Your task to perform on an android device: Show me popular games on the Play Store Image 0: 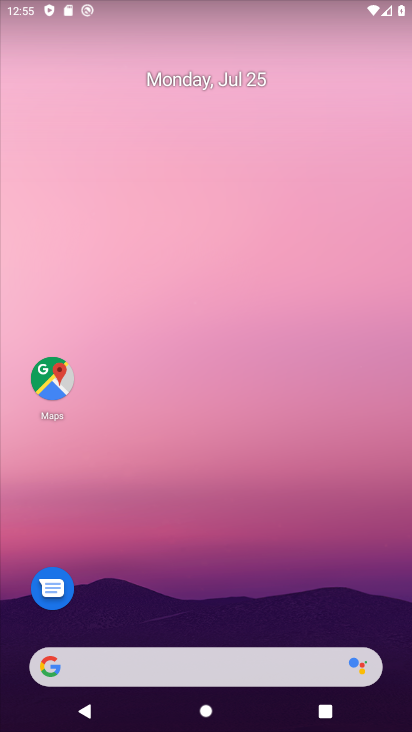
Step 0: click (201, 218)
Your task to perform on an android device: Show me popular games on the Play Store Image 1: 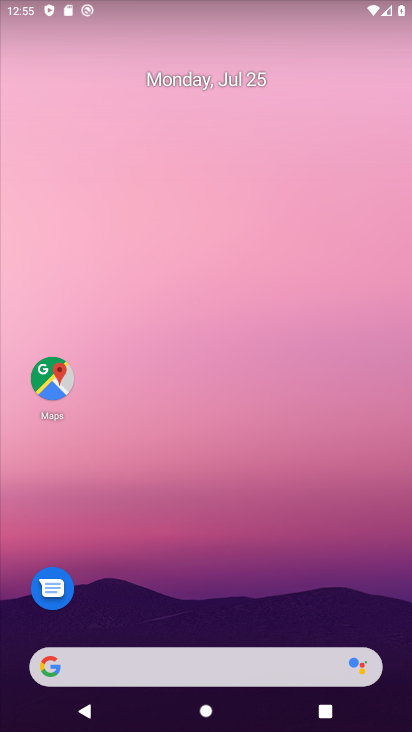
Step 1: drag from (286, 673) to (209, 146)
Your task to perform on an android device: Show me popular games on the Play Store Image 2: 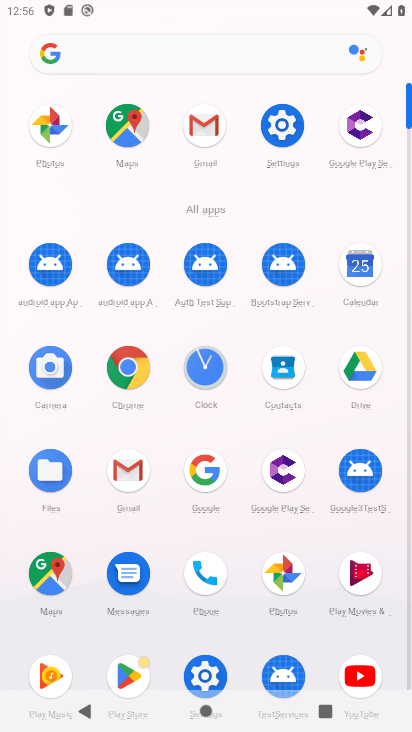
Step 2: click (125, 671)
Your task to perform on an android device: Show me popular games on the Play Store Image 3: 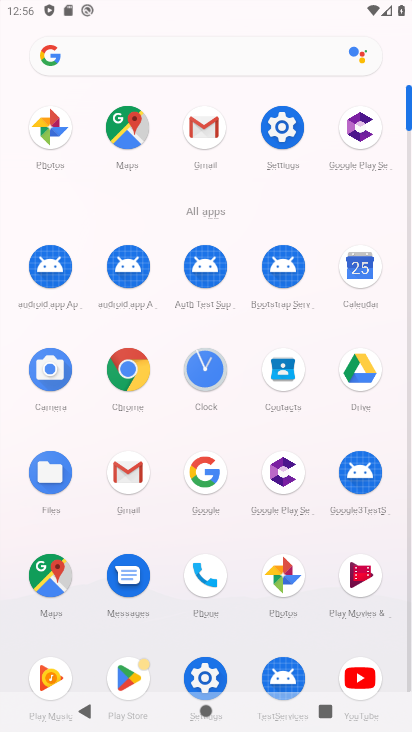
Step 3: click (133, 680)
Your task to perform on an android device: Show me popular games on the Play Store Image 4: 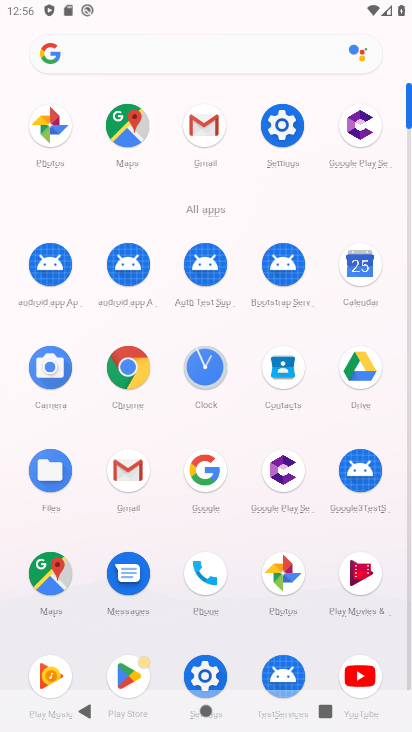
Step 4: click (134, 681)
Your task to perform on an android device: Show me popular games on the Play Store Image 5: 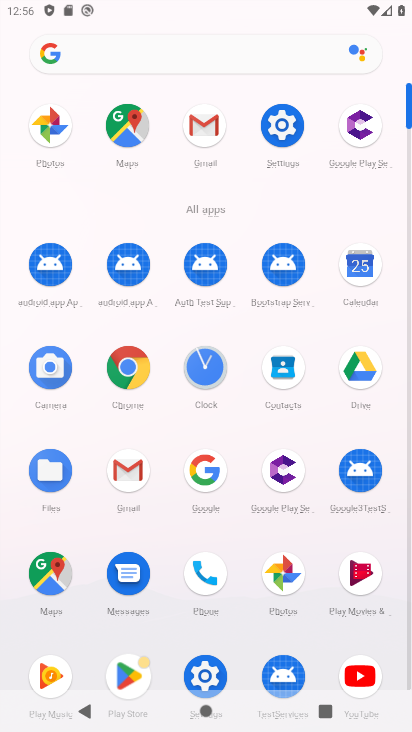
Step 5: click (134, 681)
Your task to perform on an android device: Show me popular games on the Play Store Image 6: 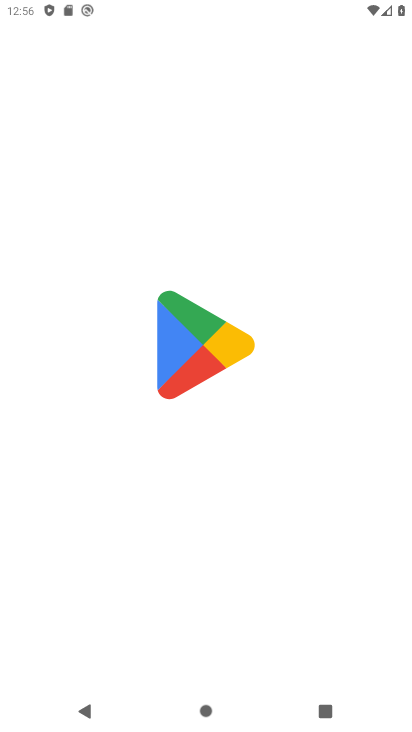
Step 6: click (137, 675)
Your task to perform on an android device: Show me popular games on the Play Store Image 7: 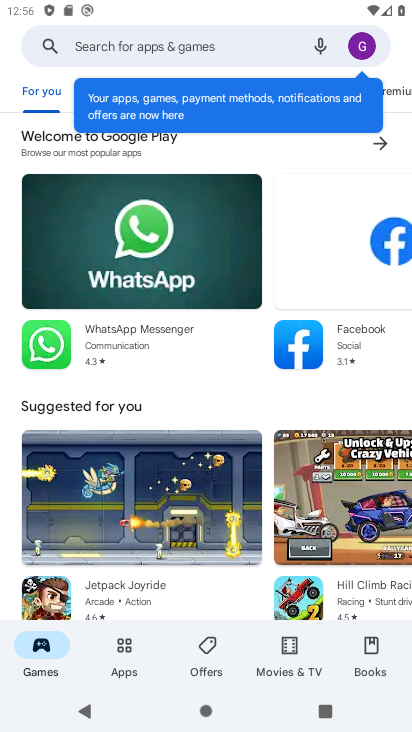
Step 7: click (240, 43)
Your task to perform on an android device: Show me popular games on the Play Store Image 8: 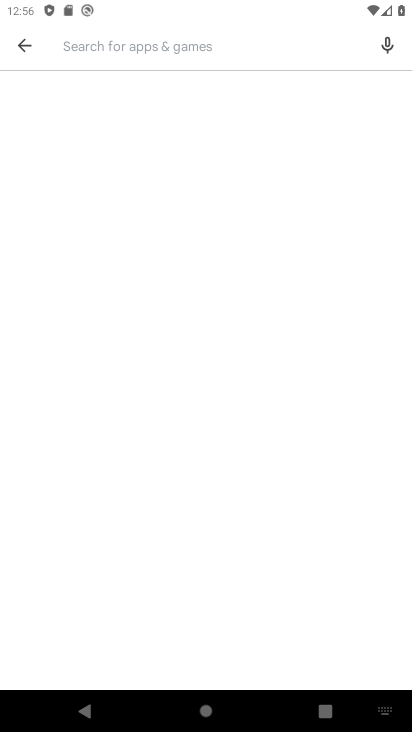
Step 8: drag from (259, 36) to (146, 39)
Your task to perform on an android device: Show me popular games on the Play Store Image 9: 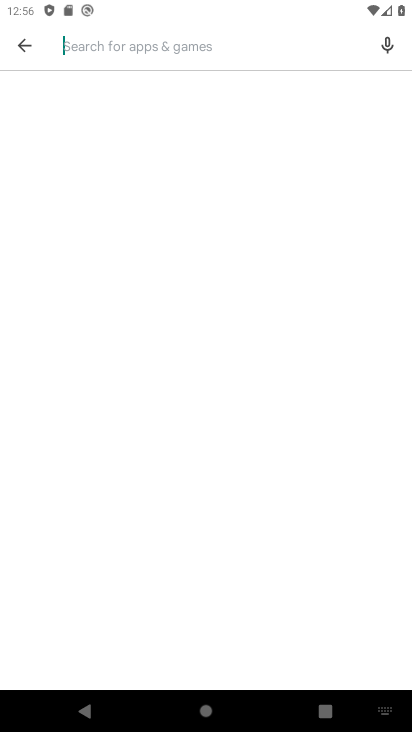
Step 9: type "popular games"
Your task to perform on an android device: Show me popular games on the Play Store Image 10: 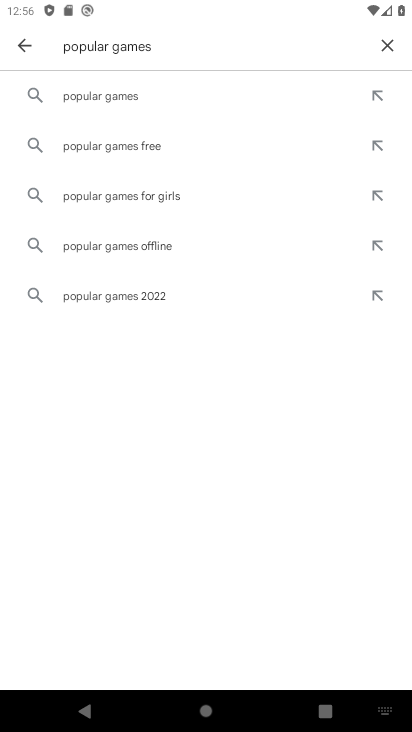
Step 10: click (122, 105)
Your task to perform on an android device: Show me popular games on the Play Store Image 11: 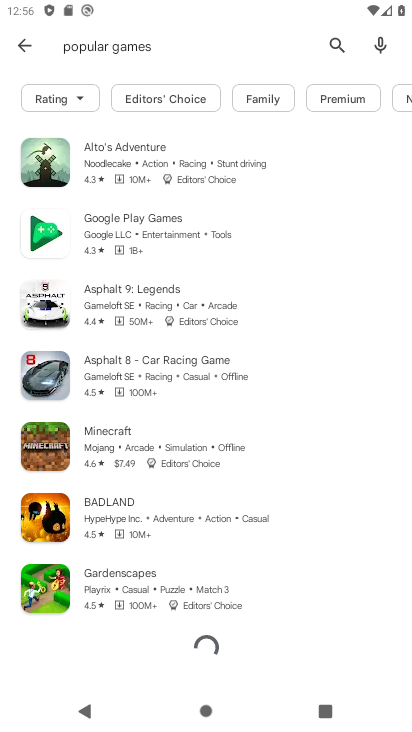
Step 11: click (119, 104)
Your task to perform on an android device: Show me popular games on the Play Store Image 12: 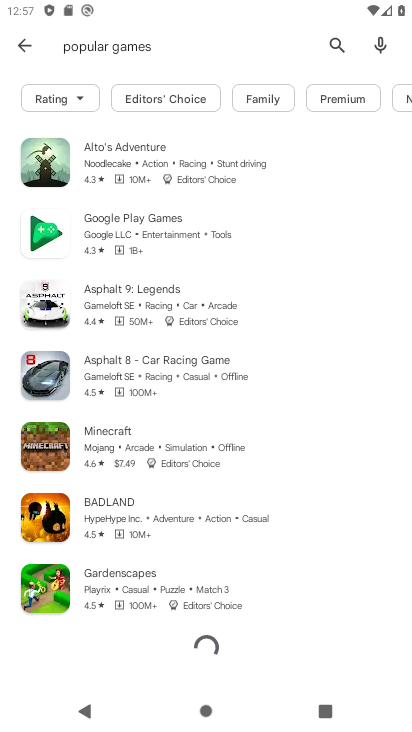
Step 12: task complete